Your task to perform on an android device: Open Yahoo.com Image 0: 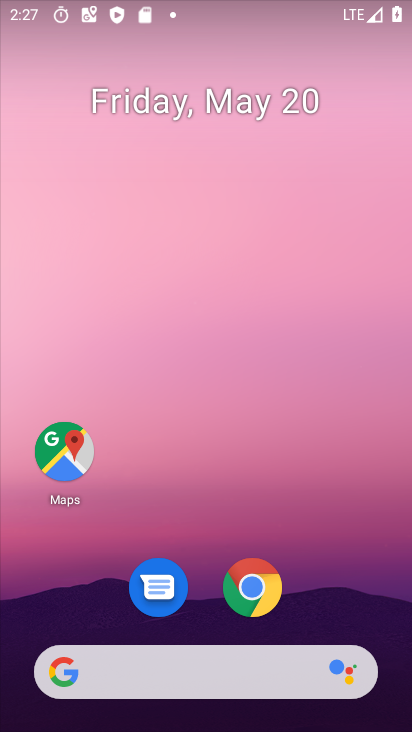
Step 0: click (265, 582)
Your task to perform on an android device: Open Yahoo.com Image 1: 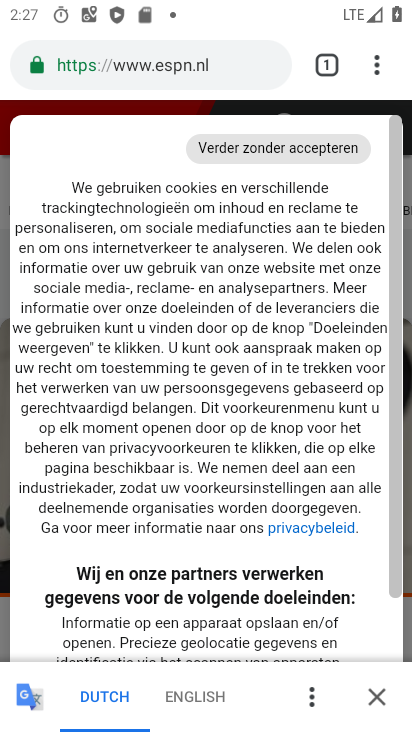
Step 1: click (195, 64)
Your task to perform on an android device: Open Yahoo.com Image 2: 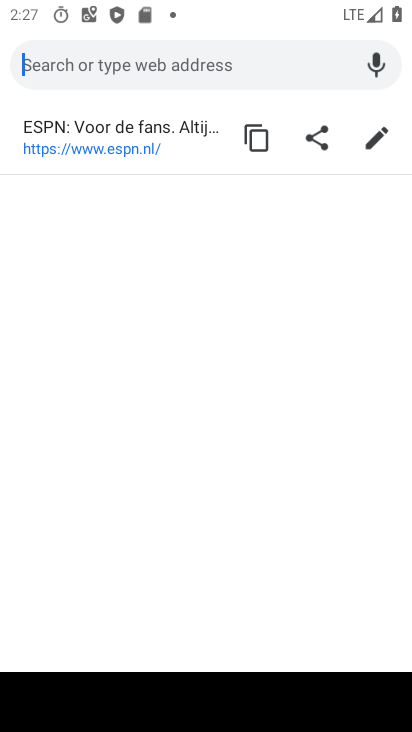
Step 2: type "yahoo.com"
Your task to perform on an android device: Open Yahoo.com Image 3: 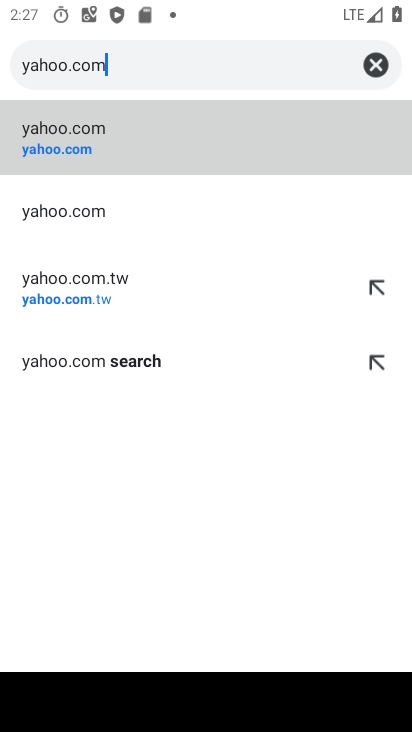
Step 3: click (81, 144)
Your task to perform on an android device: Open Yahoo.com Image 4: 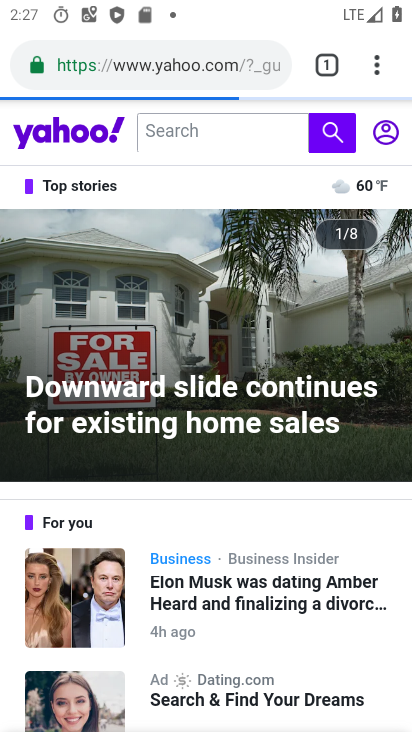
Step 4: task complete